Your task to perform on an android device: refresh tabs in the chrome app Image 0: 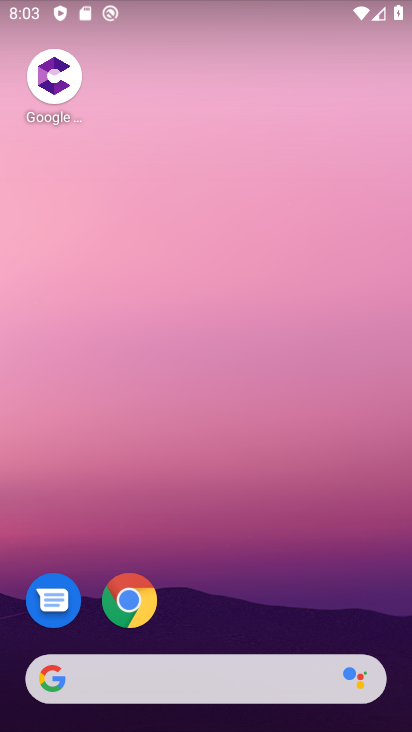
Step 0: click (126, 592)
Your task to perform on an android device: refresh tabs in the chrome app Image 1: 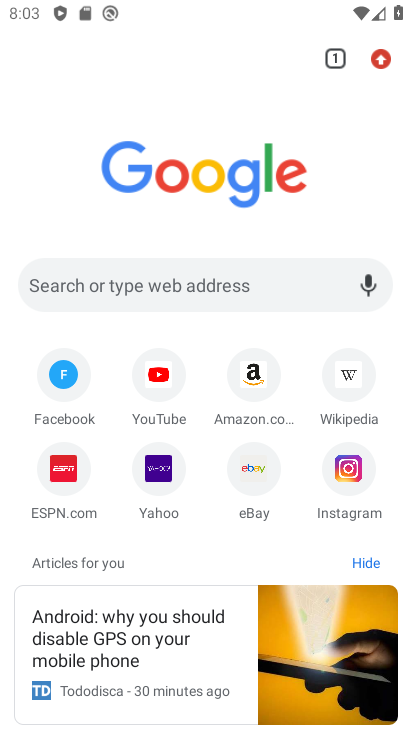
Step 1: click (379, 62)
Your task to perform on an android device: refresh tabs in the chrome app Image 2: 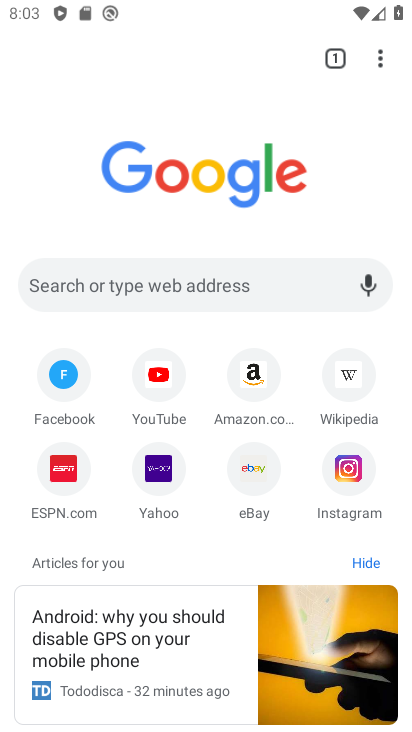
Step 2: task complete